Your task to perform on an android device: open app "Spotify" (install if not already installed) and enter user name: "infallible@icloud.com" and password: "implored" Image 0: 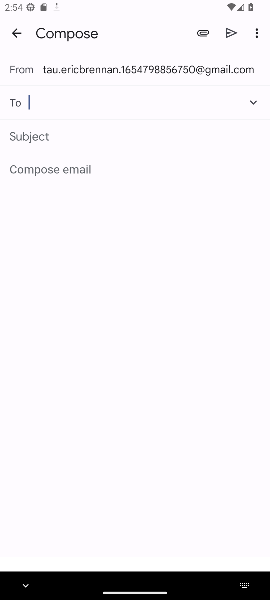
Step 0: press home button
Your task to perform on an android device: open app "Spotify" (install if not already installed) and enter user name: "infallible@icloud.com" and password: "implored" Image 1: 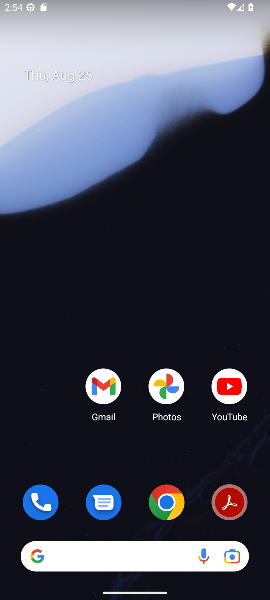
Step 1: drag from (139, 521) to (158, 90)
Your task to perform on an android device: open app "Spotify" (install if not already installed) and enter user name: "infallible@icloud.com" and password: "implored" Image 2: 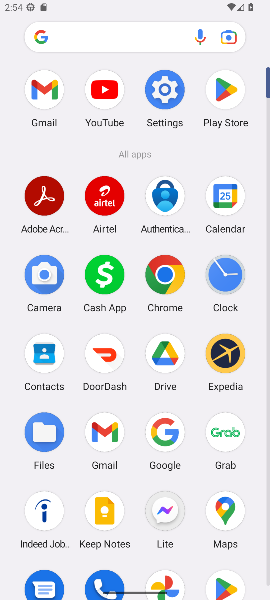
Step 2: click (215, 82)
Your task to perform on an android device: open app "Spotify" (install if not already installed) and enter user name: "infallible@icloud.com" and password: "implored" Image 3: 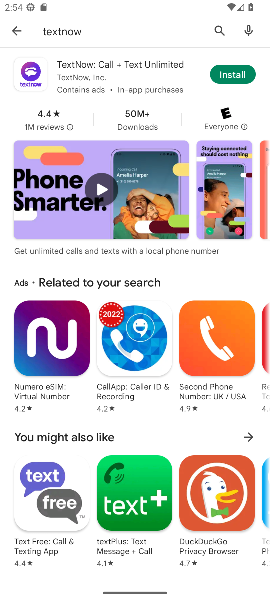
Step 3: click (223, 31)
Your task to perform on an android device: open app "Spotify" (install if not already installed) and enter user name: "infallible@icloud.com" and password: "implored" Image 4: 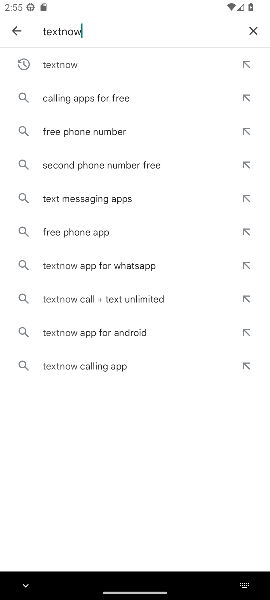
Step 4: click (249, 29)
Your task to perform on an android device: open app "Spotify" (install if not already installed) and enter user name: "infallible@icloud.com" and password: "implored" Image 5: 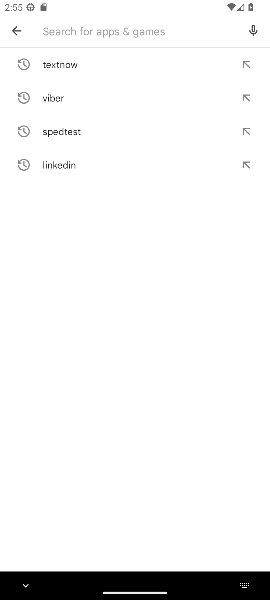
Step 5: type "spotify"
Your task to perform on an android device: open app "Spotify" (install if not already installed) and enter user name: "infallible@icloud.com" and password: "implored" Image 6: 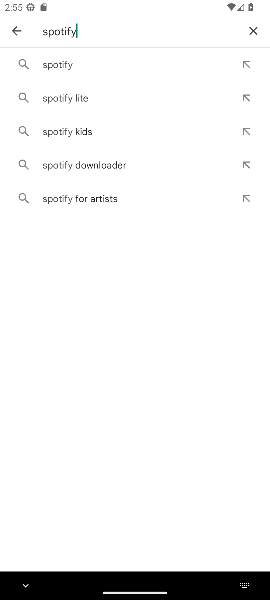
Step 6: click (78, 49)
Your task to perform on an android device: open app "Spotify" (install if not already installed) and enter user name: "infallible@icloud.com" and password: "implored" Image 7: 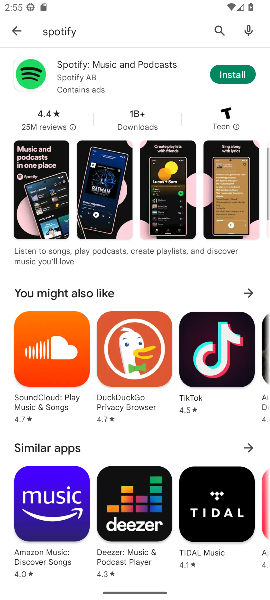
Step 7: click (233, 80)
Your task to perform on an android device: open app "Spotify" (install if not already installed) and enter user name: "infallible@icloud.com" and password: "implored" Image 8: 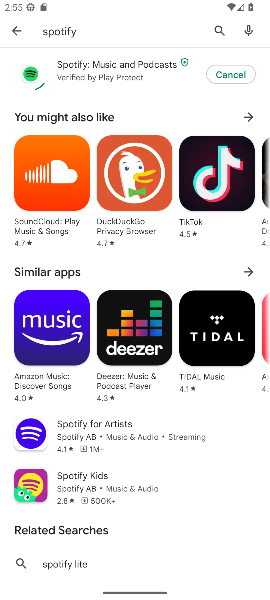
Step 8: task complete